Your task to perform on an android device: turn on showing notifications on the lock screen Image 0: 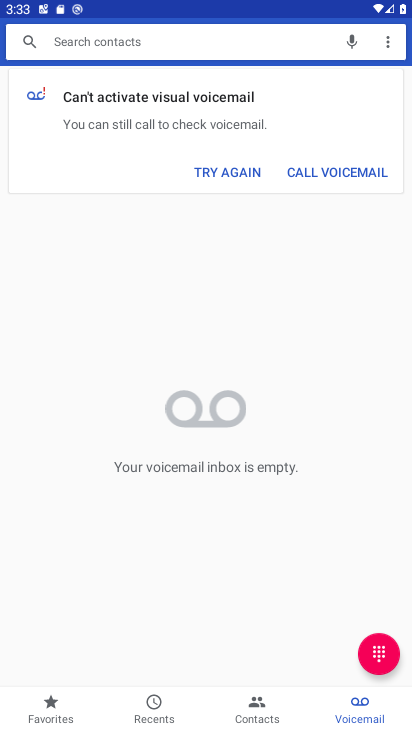
Step 0: press home button
Your task to perform on an android device: turn on showing notifications on the lock screen Image 1: 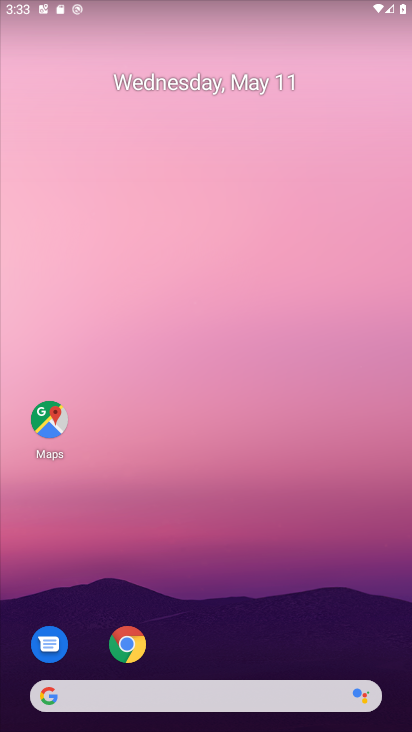
Step 1: drag from (220, 675) to (142, 9)
Your task to perform on an android device: turn on showing notifications on the lock screen Image 2: 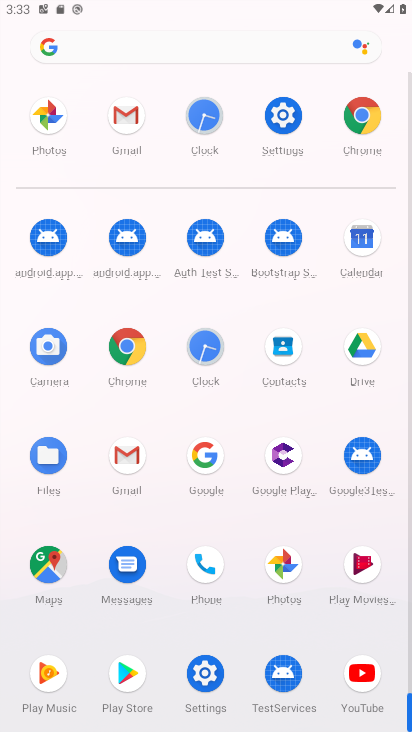
Step 2: click (290, 123)
Your task to perform on an android device: turn on showing notifications on the lock screen Image 3: 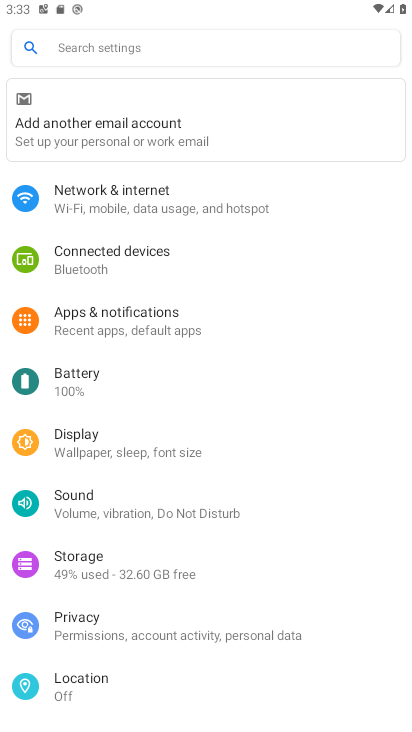
Step 3: click (118, 356)
Your task to perform on an android device: turn on showing notifications on the lock screen Image 4: 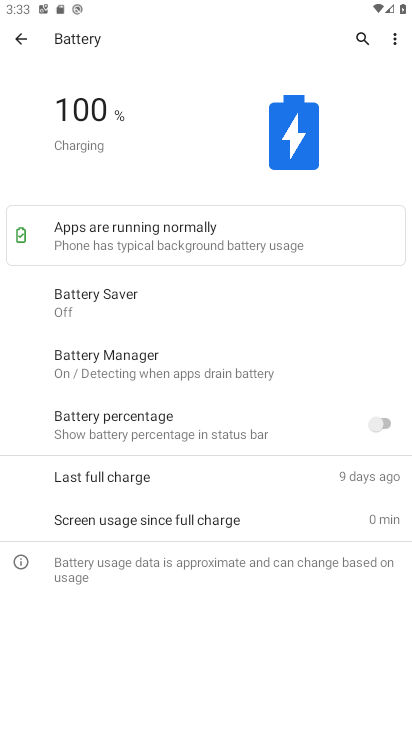
Step 4: press back button
Your task to perform on an android device: turn on showing notifications on the lock screen Image 5: 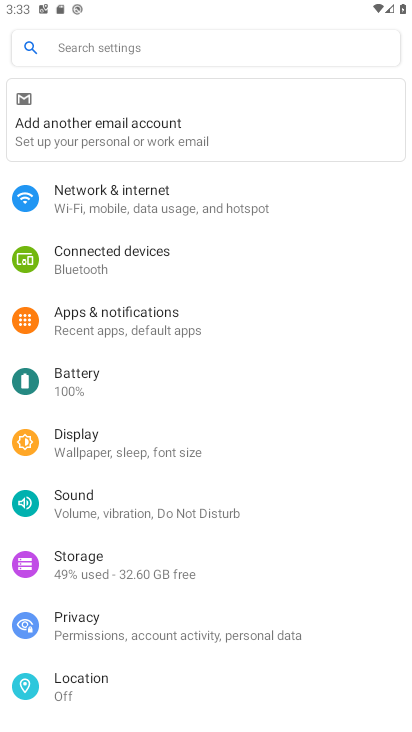
Step 5: click (118, 317)
Your task to perform on an android device: turn on showing notifications on the lock screen Image 6: 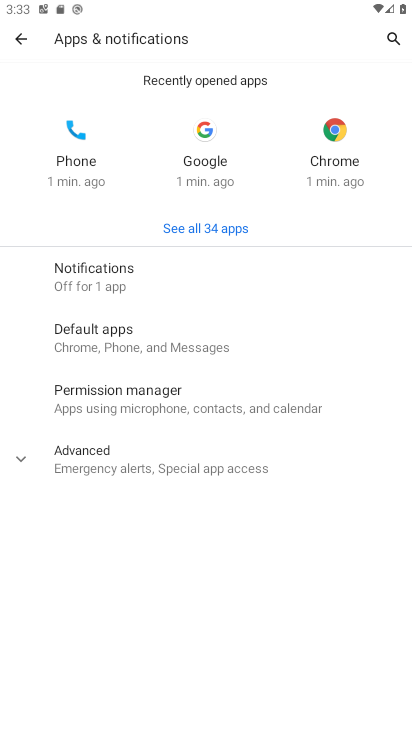
Step 6: click (126, 448)
Your task to perform on an android device: turn on showing notifications on the lock screen Image 7: 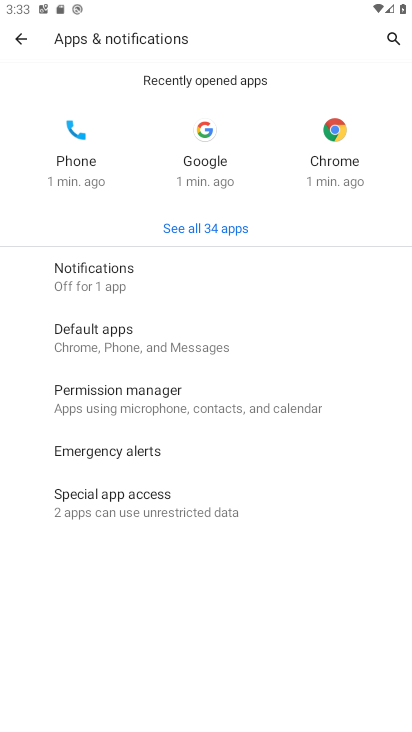
Step 7: click (126, 286)
Your task to perform on an android device: turn on showing notifications on the lock screen Image 8: 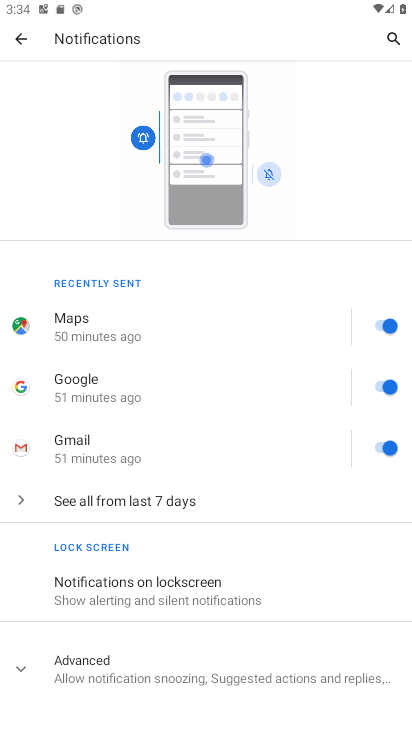
Step 8: click (125, 598)
Your task to perform on an android device: turn on showing notifications on the lock screen Image 9: 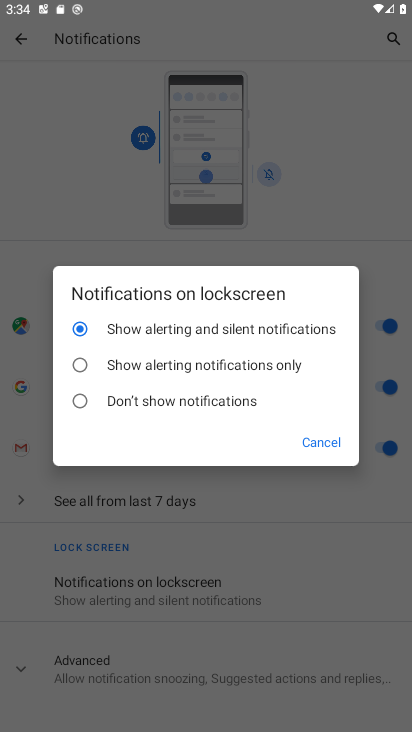
Step 9: click (173, 318)
Your task to perform on an android device: turn on showing notifications on the lock screen Image 10: 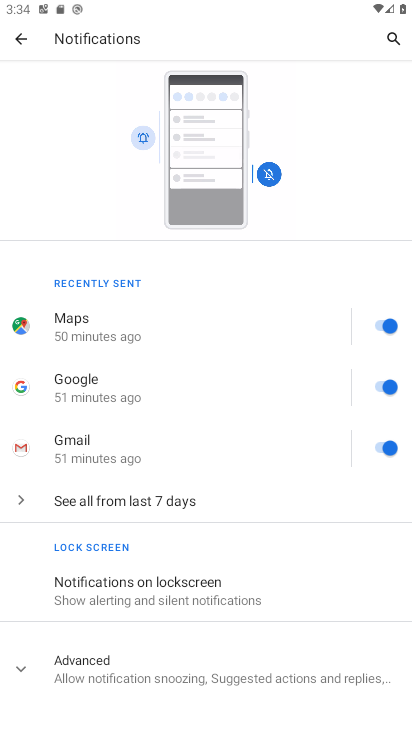
Step 10: task complete